Your task to perform on an android device: Search for the best pizza restaurants on Maps Image 0: 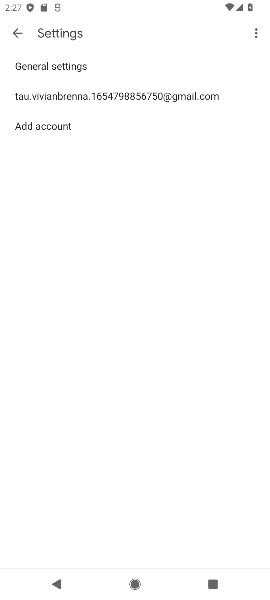
Step 0: press home button
Your task to perform on an android device: Search for the best pizza restaurants on Maps Image 1: 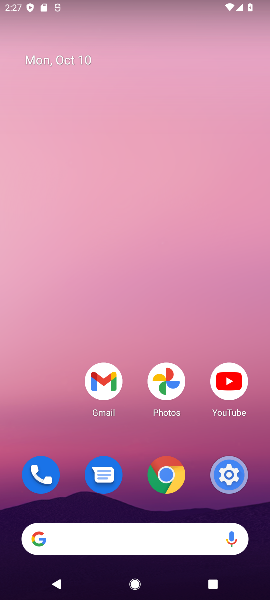
Step 1: drag from (97, 432) to (111, 111)
Your task to perform on an android device: Search for the best pizza restaurants on Maps Image 2: 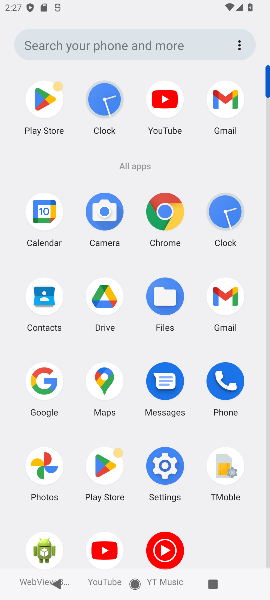
Step 2: click (99, 389)
Your task to perform on an android device: Search for the best pizza restaurants on Maps Image 3: 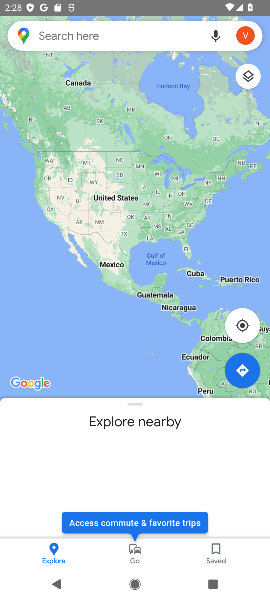
Step 3: click (136, 47)
Your task to perform on an android device: Search for the best pizza restaurants on Maps Image 4: 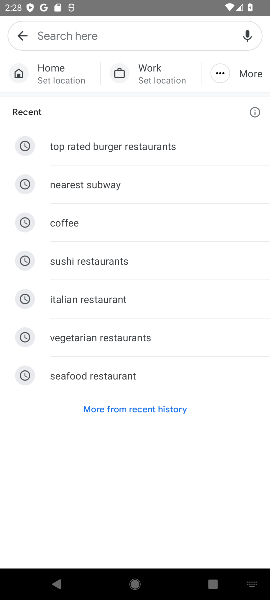
Step 4: type "best  pizza restaurants"
Your task to perform on an android device: Search for the best pizza restaurants on Maps Image 5: 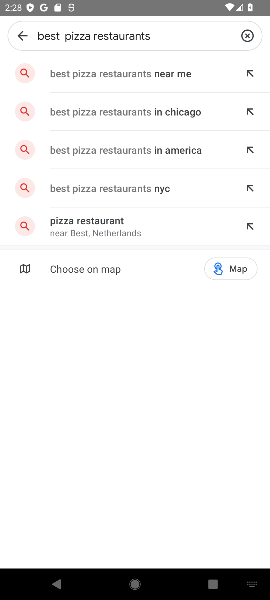
Step 5: click (147, 75)
Your task to perform on an android device: Search for the best pizza restaurants on Maps Image 6: 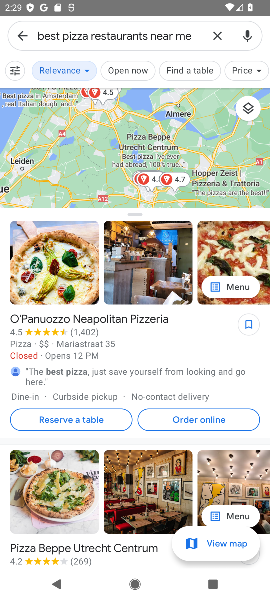
Step 6: task complete